Your task to perform on an android device: turn off location history Image 0: 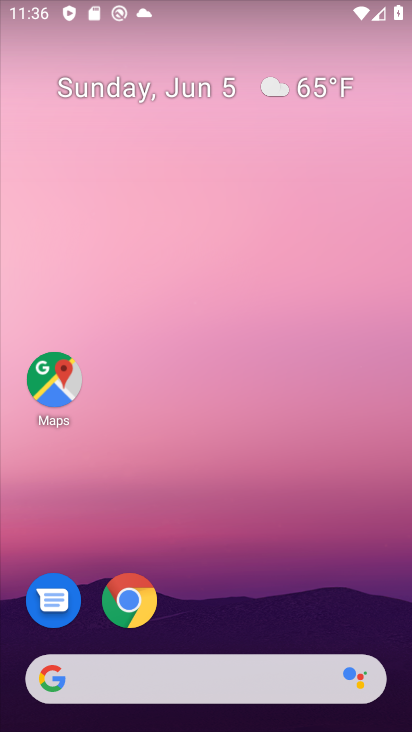
Step 0: drag from (394, 520) to (357, 105)
Your task to perform on an android device: turn off location history Image 1: 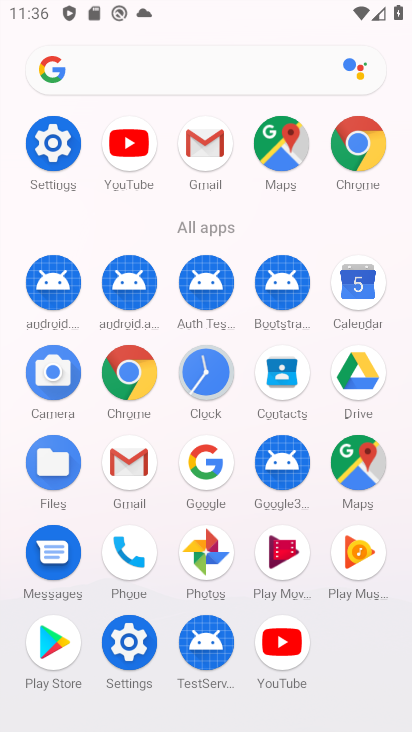
Step 1: click (56, 147)
Your task to perform on an android device: turn off location history Image 2: 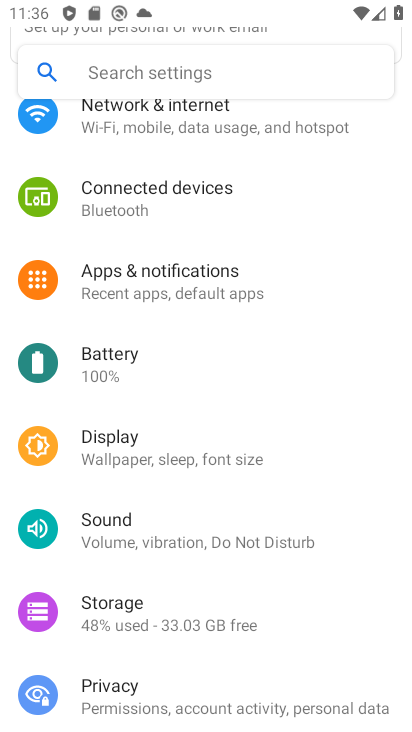
Step 2: drag from (207, 659) to (206, 268)
Your task to perform on an android device: turn off location history Image 3: 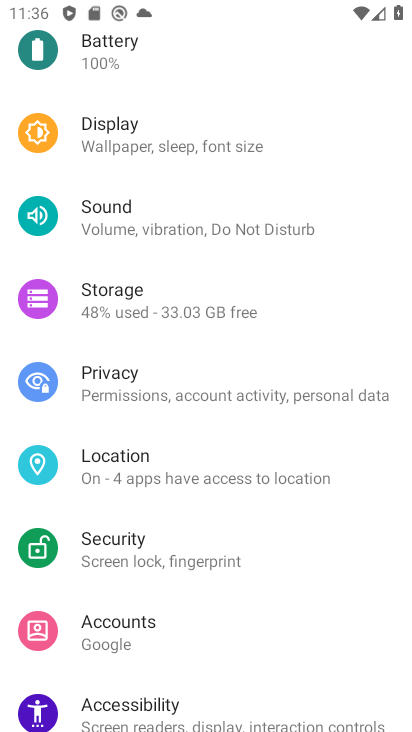
Step 3: click (98, 454)
Your task to perform on an android device: turn off location history Image 4: 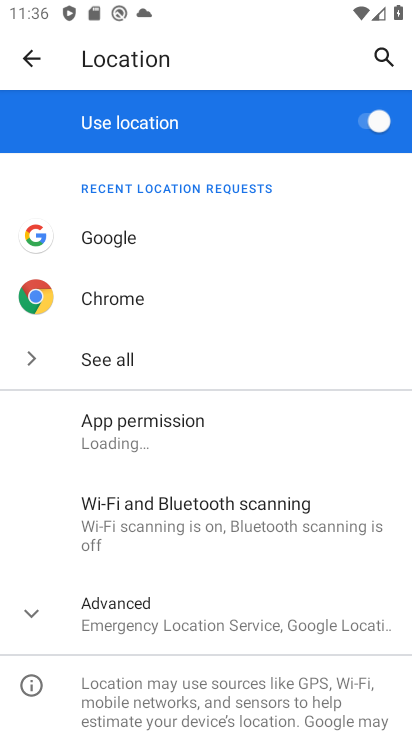
Step 4: click (42, 608)
Your task to perform on an android device: turn off location history Image 5: 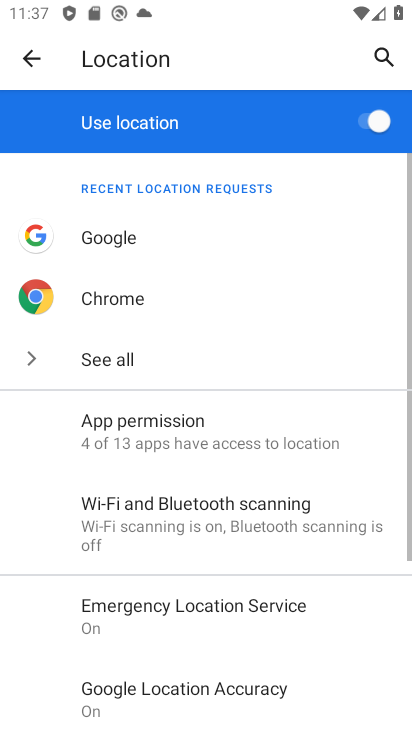
Step 5: drag from (310, 689) to (285, 214)
Your task to perform on an android device: turn off location history Image 6: 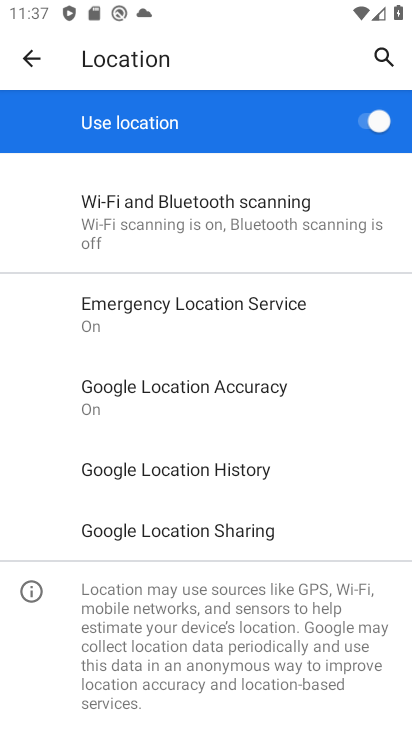
Step 6: drag from (293, 653) to (275, 325)
Your task to perform on an android device: turn off location history Image 7: 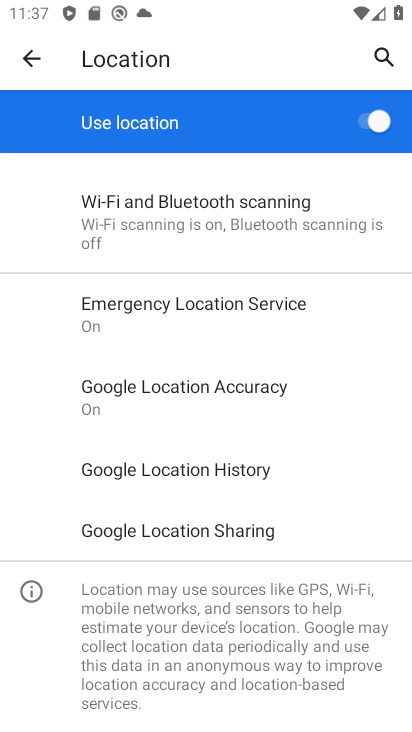
Step 7: click (196, 462)
Your task to perform on an android device: turn off location history Image 8: 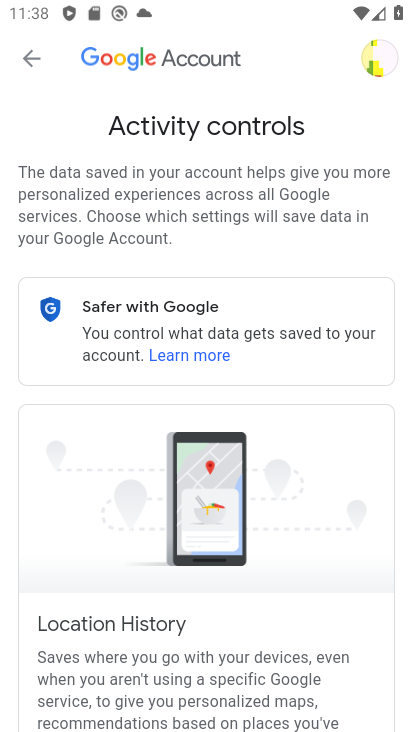
Step 8: drag from (171, 693) to (202, 170)
Your task to perform on an android device: turn off location history Image 9: 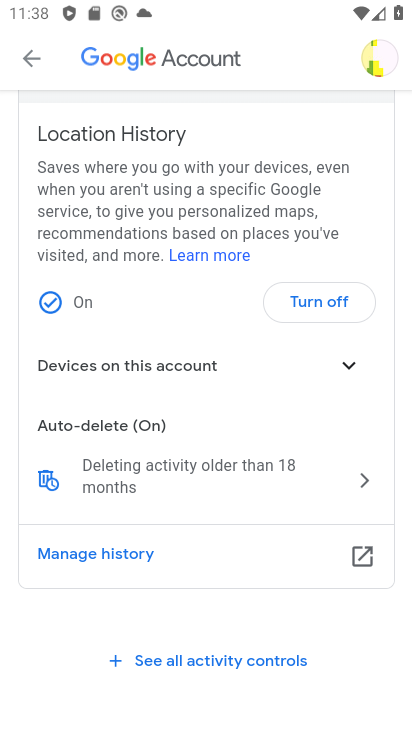
Step 9: click (301, 295)
Your task to perform on an android device: turn off location history Image 10: 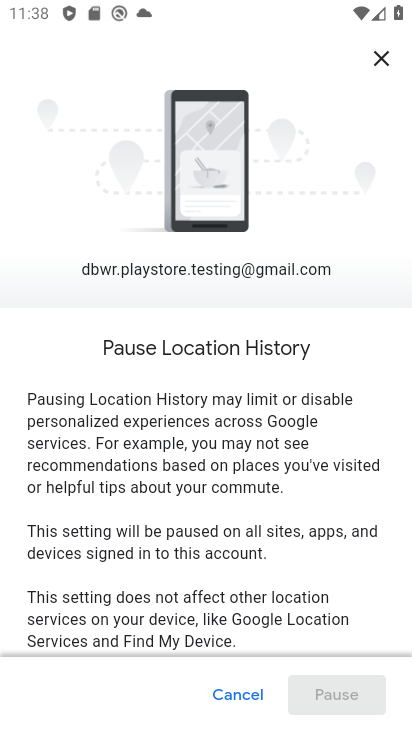
Step 10: drag from (204, 643) to (260, 58)
Your task to perform on an android device: turn off location history Image 11: 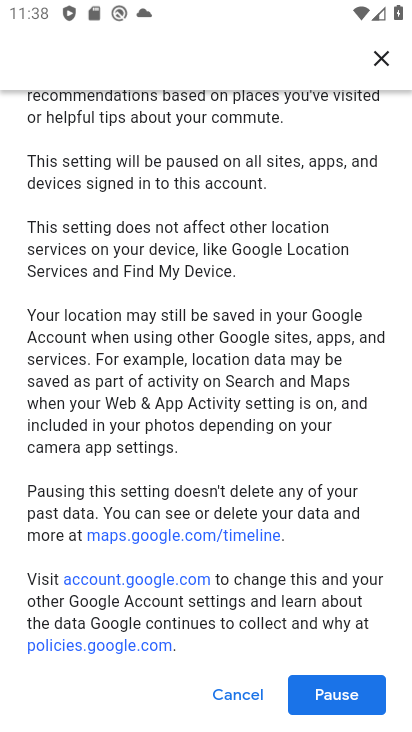
Step 11: click (326, 698)
Your task to perform on an android device: turn off location history Image 12: 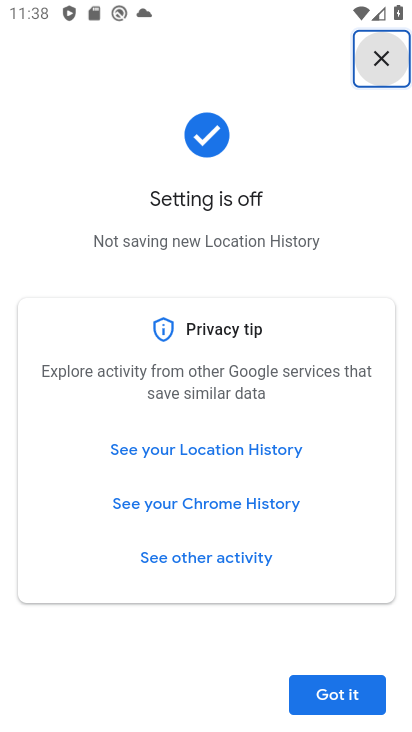
Step 12: click (325, 684)
Your task to perform on an android device: turn off location history Image 13: 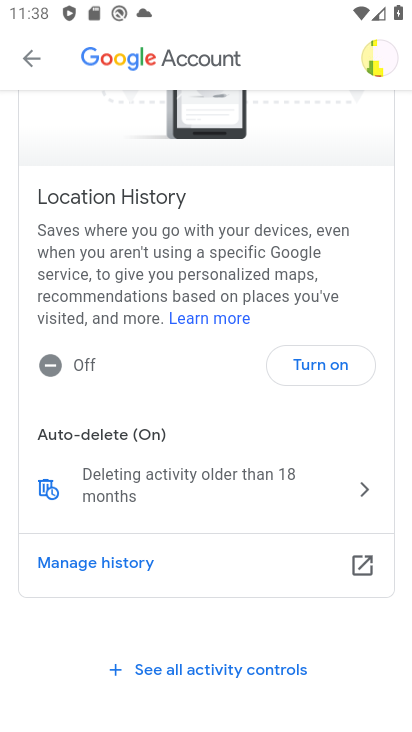
Step 13: task complete